Your task to perform on an android device: turn off priority inbox in the gmail app Image 0: 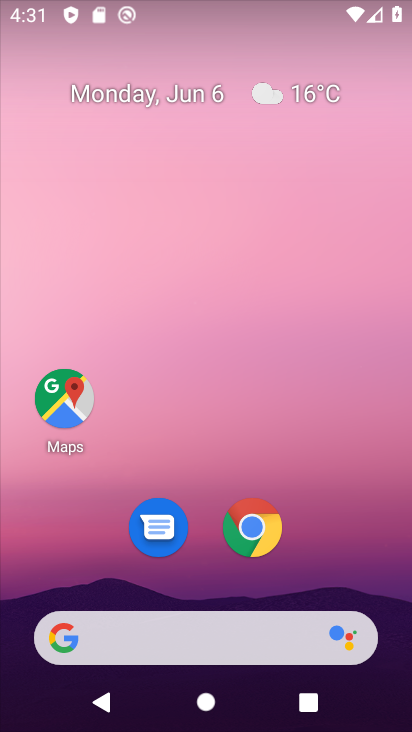
Step 0: drag from (386, 668) to (365, 114)
Your task to perform on an android device: turn off priority inbox in the gmail app Image 1: 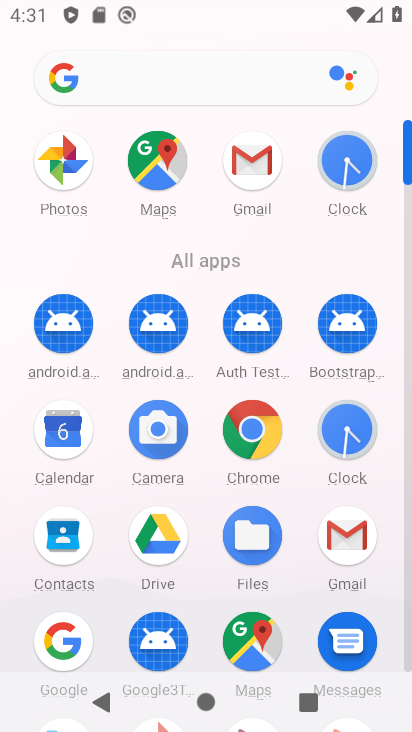
Step 1: click (258, 166)
Your task to perform on an android device: turn off priority inbox in the gmail app Image 2: 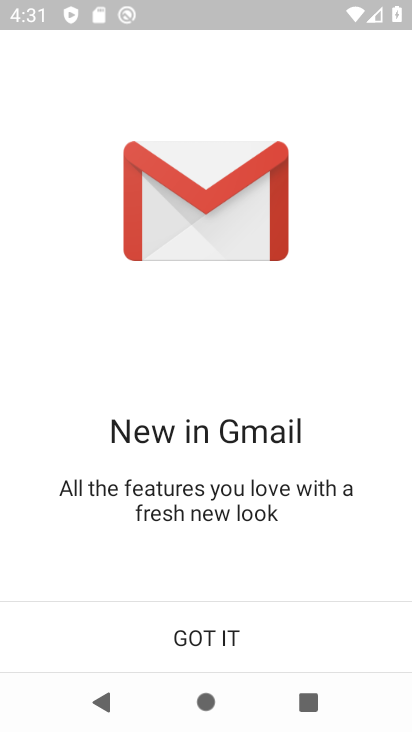
Step 2: click (210, 635)
Your task to perform on an android device: turn off priority inbox in the gmail app Image 3: 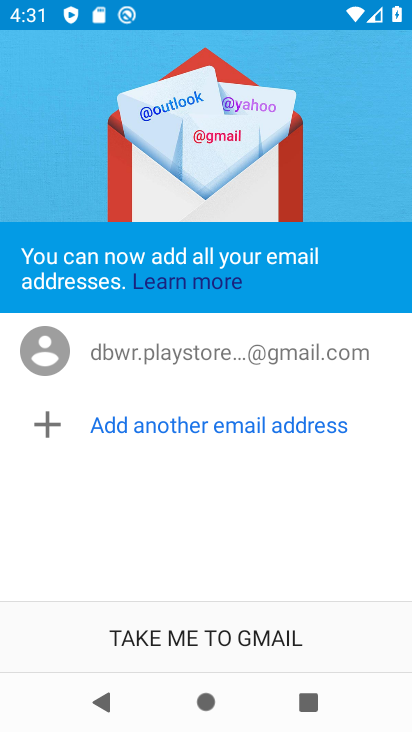
Step 3: click (211, 624)
Your task to perform on an android device: turn off priority inbox in the gmail app Image 4: 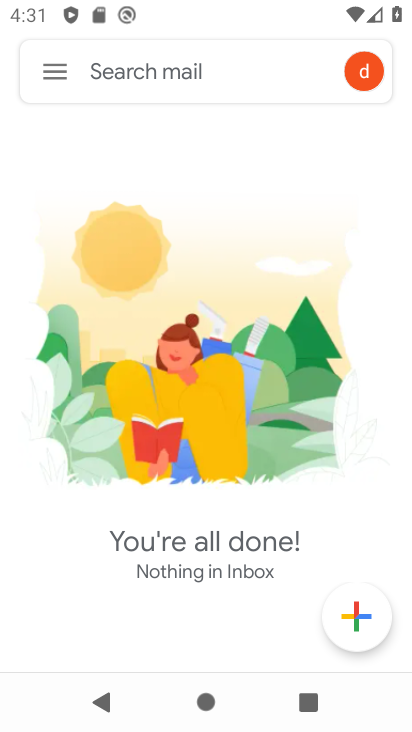
Step 4: click (43, 73)
Your task to perform on an android device: turn off priority inbox in the gmail app Image 5: 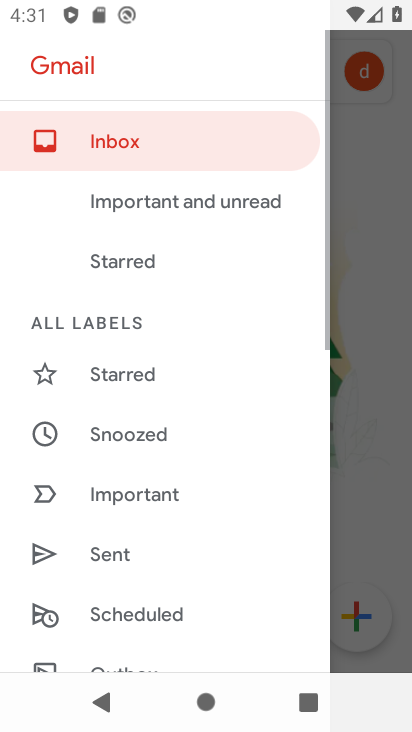
Step 5: drag from (260, 576) to (258, 162)
Your task to perform on an android device: turn off priority inbox in the gmail app Image 6: 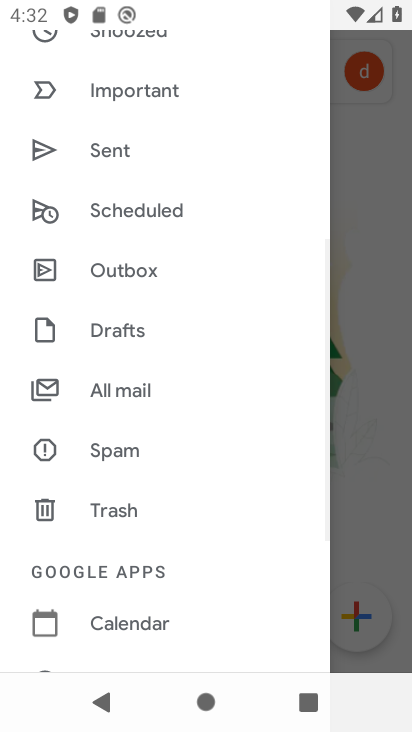
Step 6: drag from (239, 587) to (283, 226)
Your task to perform on an android device: turn off priority inbox in the gmail app Image 7: 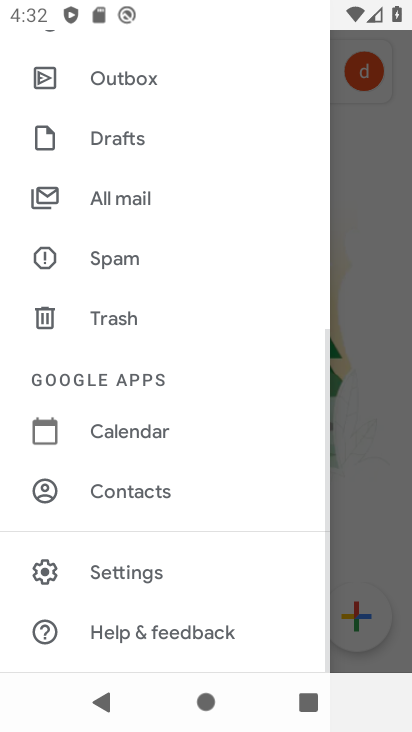
Step 7: click (117, 564)
Your task to perform on an android device: turn off priority inbox in the gmail app Image 8: 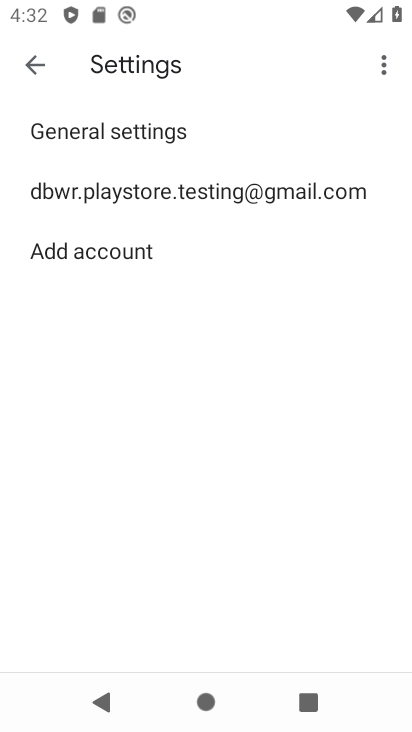
Step 8: click (99, 195)
Your task to perform on an android device: turn off priority inbox in the gmail app Image 9: 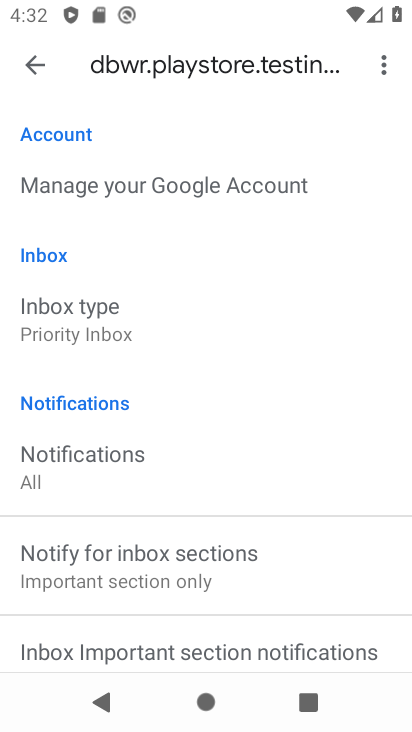
Step 9: click (96, 322)
Your task to perform on an android device: turn off priority inbox in the gmail app Image 10: 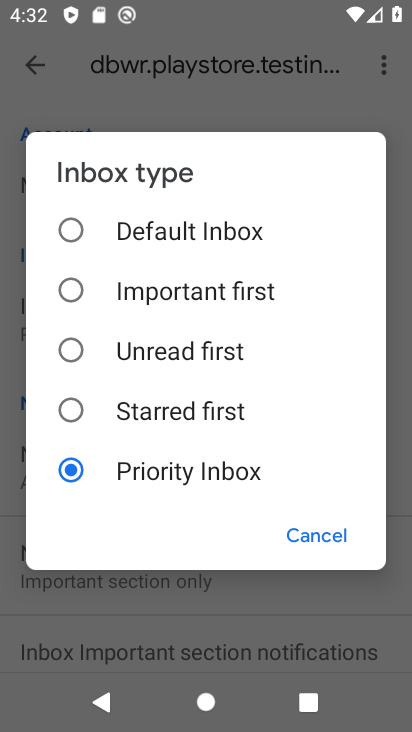
Step 10: click (69, 222)
Your task to perform on an android device: turn off priority inbox in the gmail app Image 11: 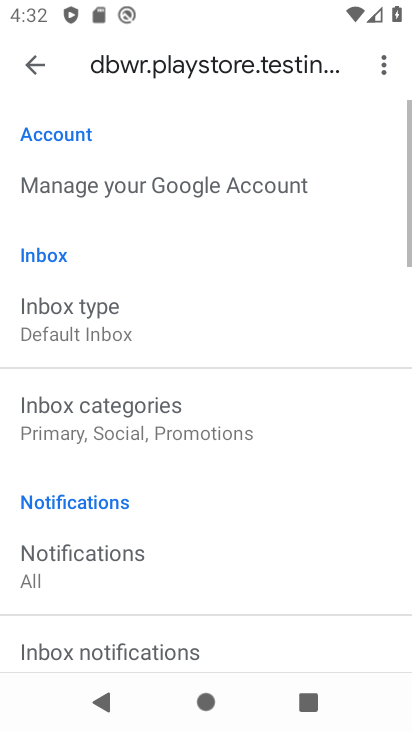
Step 11: task complete